Your task to perform on an android device: change notification settings in the gmail app Image 0: 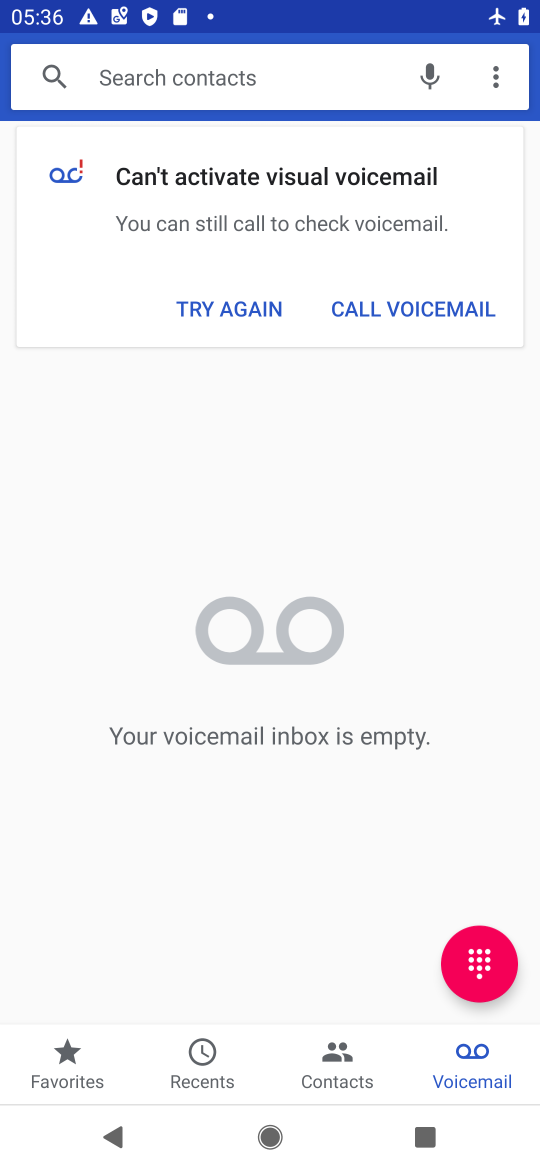
Step 0: press back button
Your task to perform on an android device: change notification settings in the gmail app Image 1: 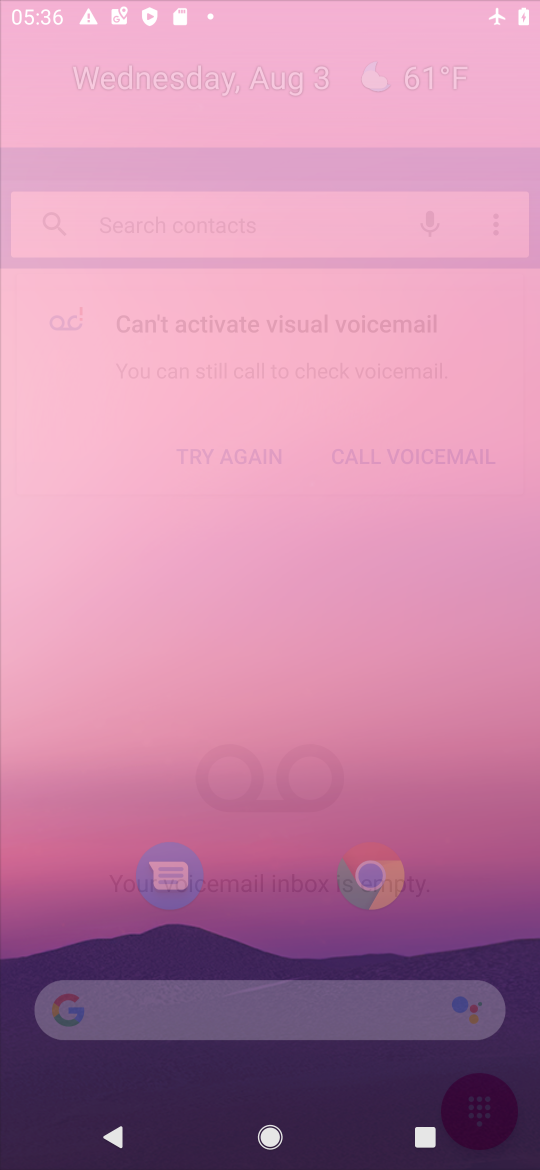
Step 1: press home button
Your task to perform on an android device: change notification settings in the gmail app Image 2: 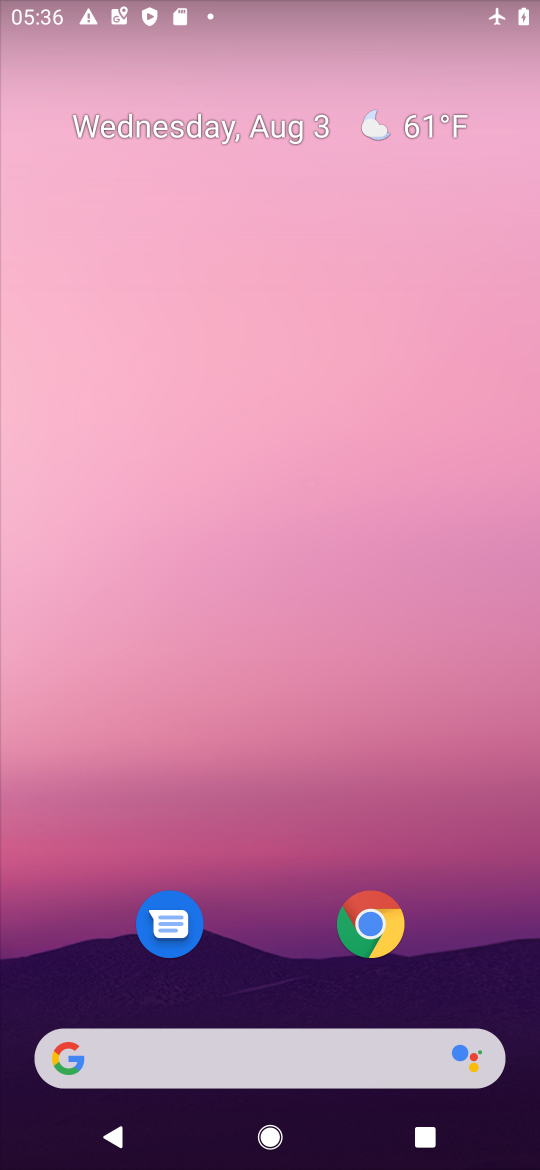
Step 2: click (314, 299)
Your task to perform on an android device: change notification settings in the gmail app Image 3: 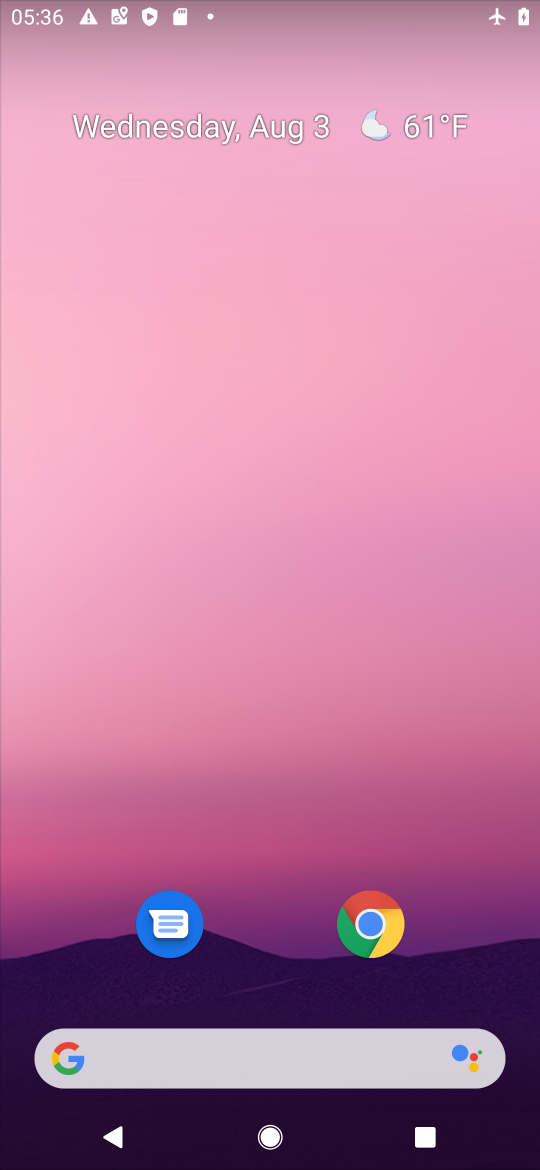
Step 3: drag from (243, 521) to (241, 288)
Your task to perform on an android device: change notification settings in the gmail app Image 4: 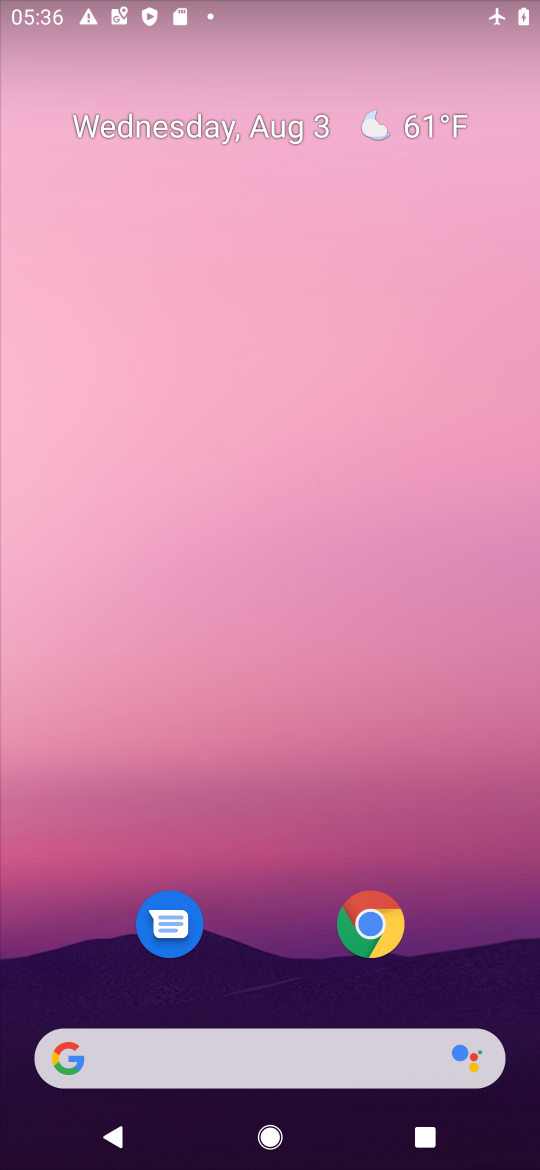
Step 4: drag from (282, 932) to (280, 215)
Your task to perform on an android device: change notification settings in the gmail app Image 5: 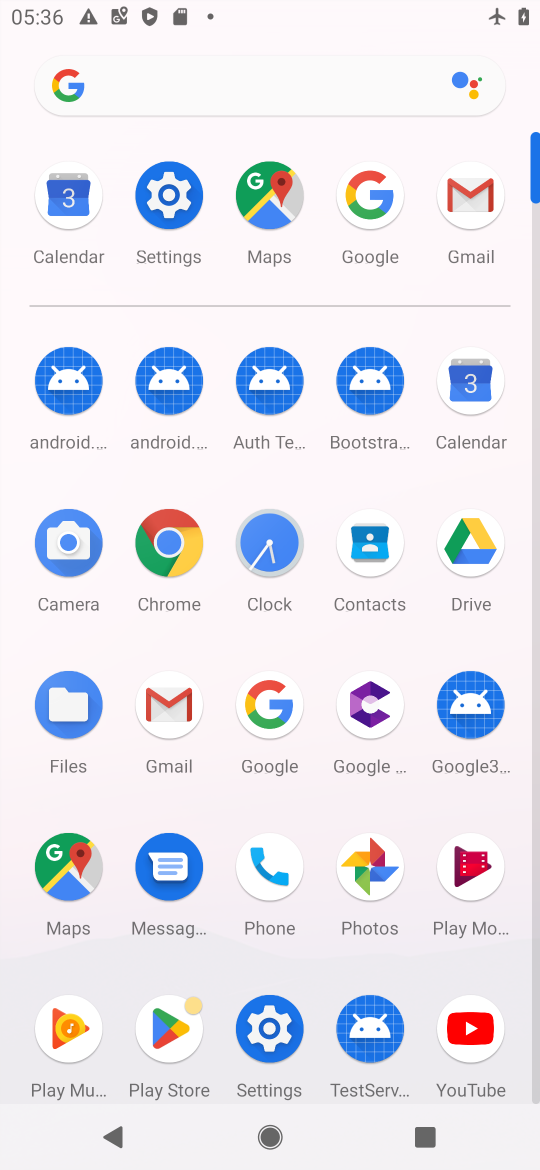
Step 5: click (446, 210)
Your task to perform on an android device: change notification settings in the gmail app Image 6: 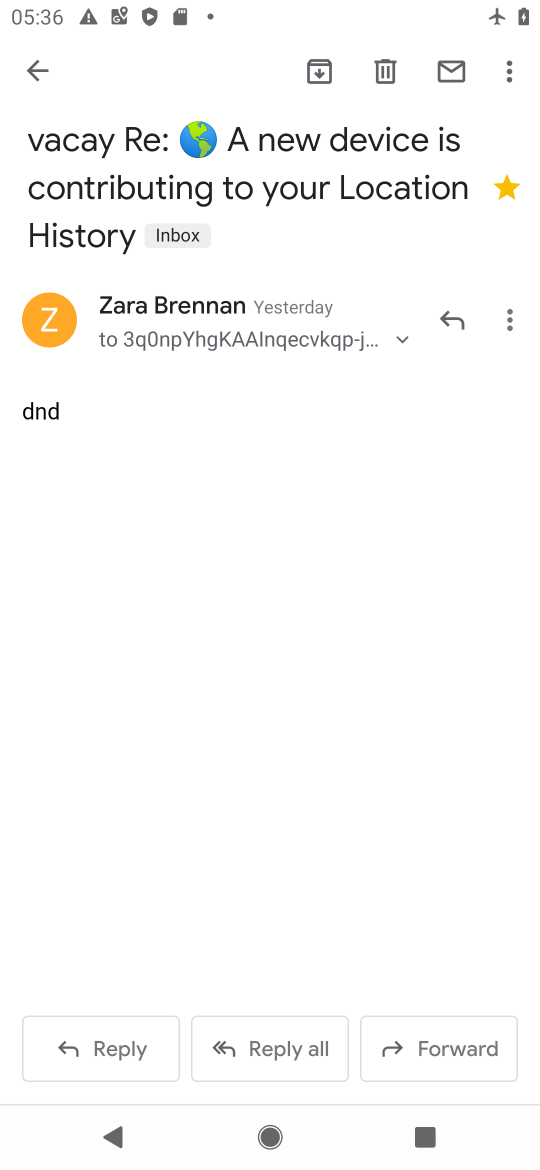
Step 6: click (34, 74)
Your task to perform on an android device: change notification settings in the gmail app Image 7: 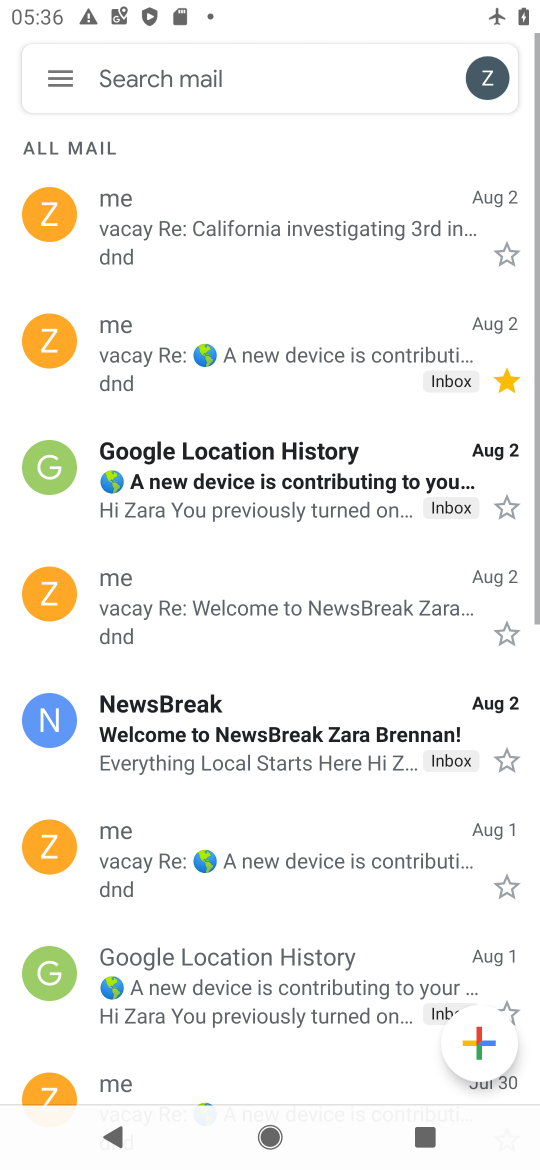
Step 7: click (55, 101)
Your task to perform on an android device: change notification settings in the gmail app Image 8: 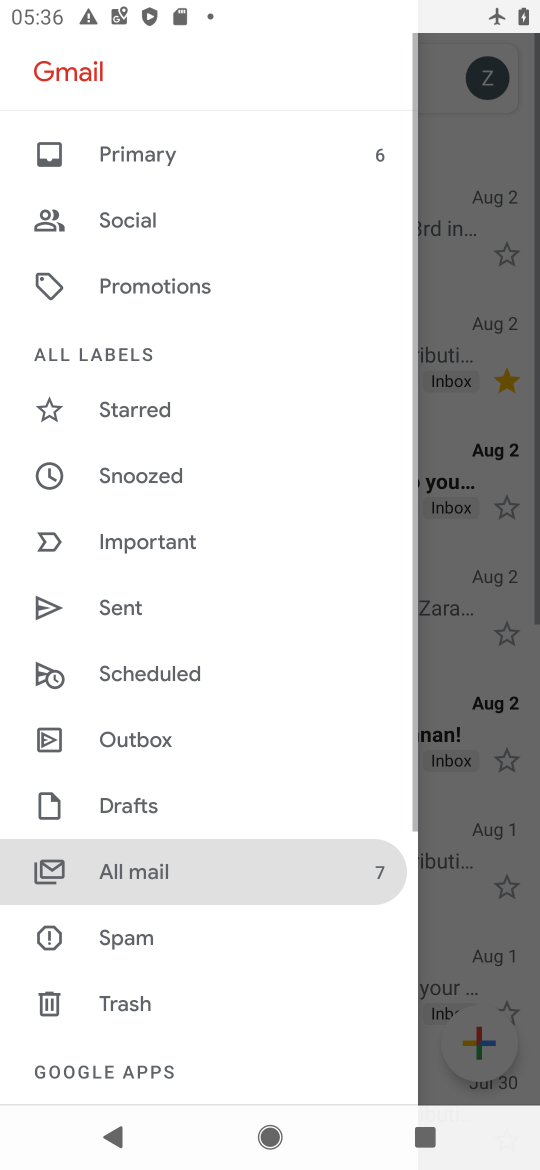
Step 8: drag from (177, 1024) to (189, 397)
Your task to perform on an android device: change notification settings in the gmail app Image 9: 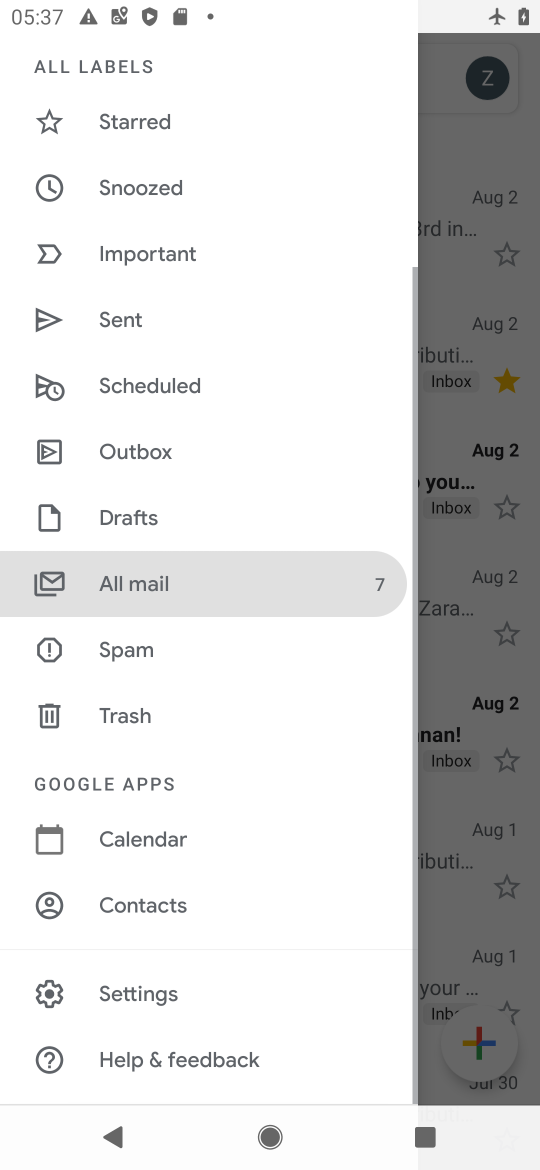
Step 9: click (140, 996)
Your task to perform on an android device: change notification settings in the gmail app Image 10: 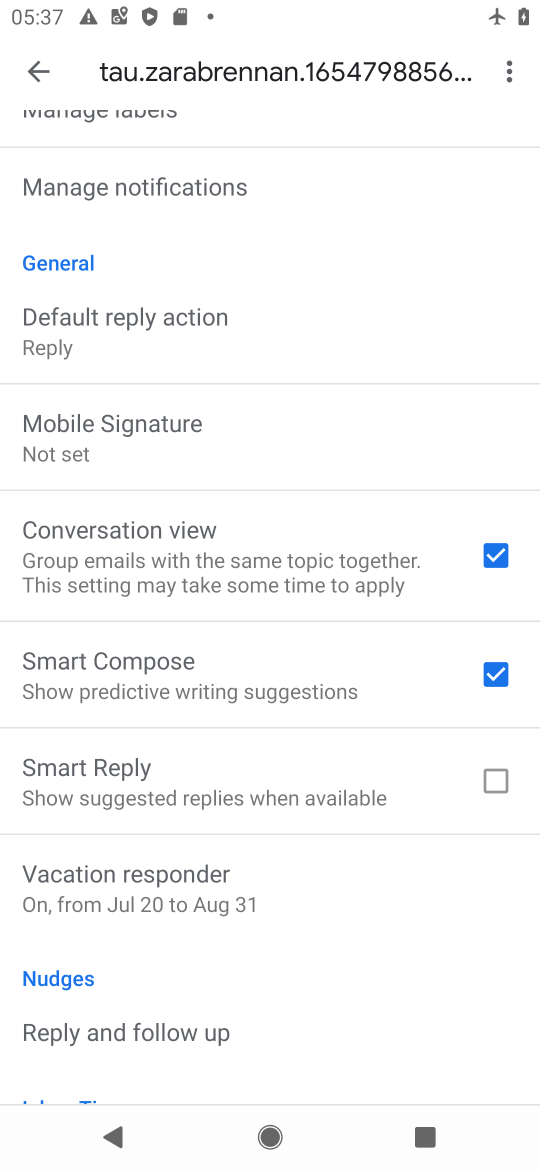
Step 10: click (221, 188)
Your task to perform on an android device: change notification settings in the gmail app Image 11: 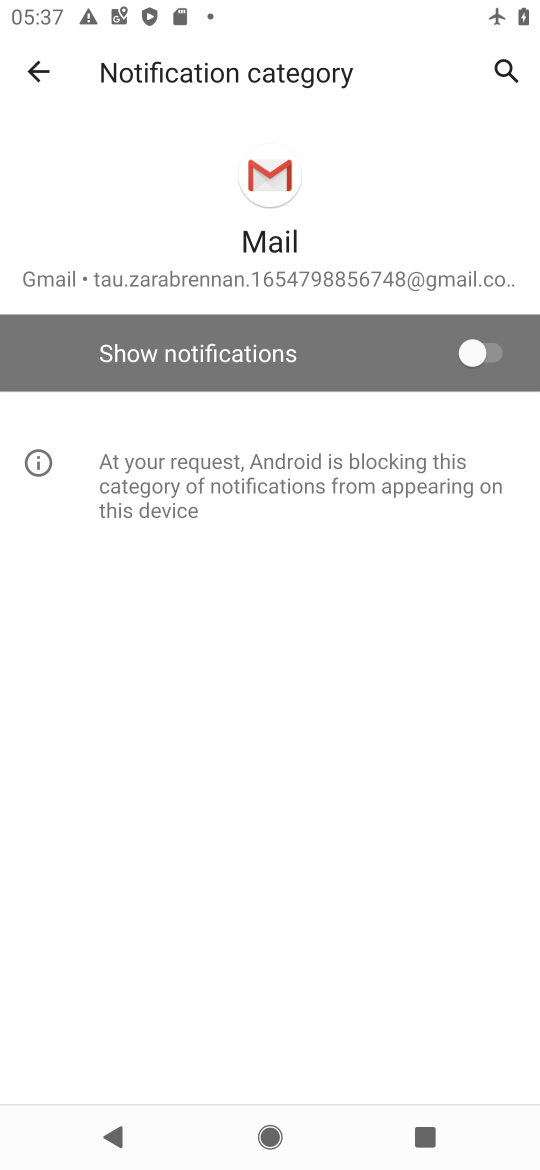
Step 11: click (479, 353)
Your task to perform on an android device: change notification settings in the gmail app Image 12: 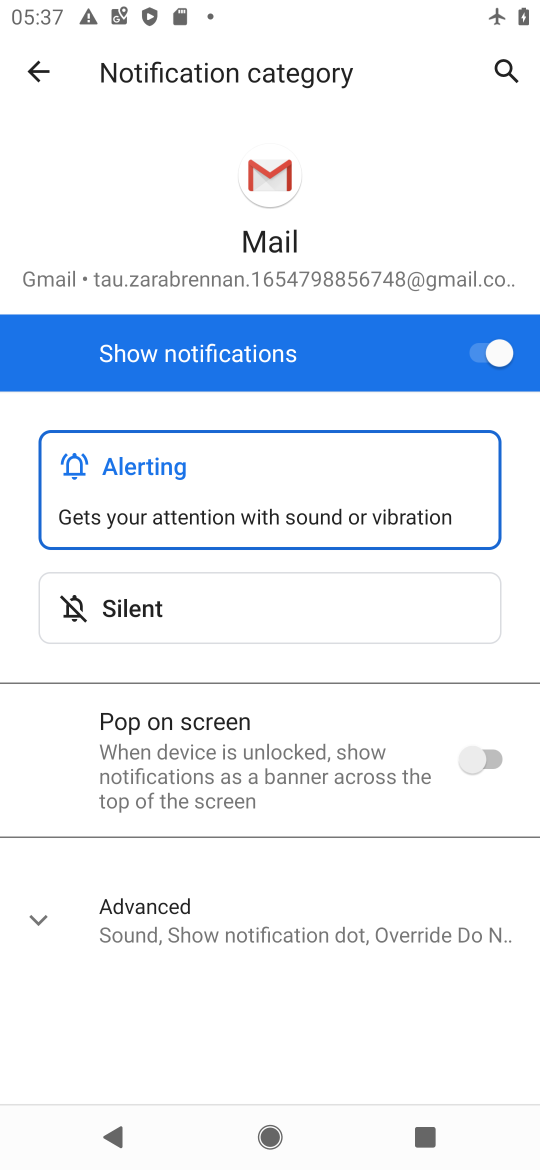
Step 12: task complete